Your task to perform on an android device: Play the last video I watched on Youtube Image 0: 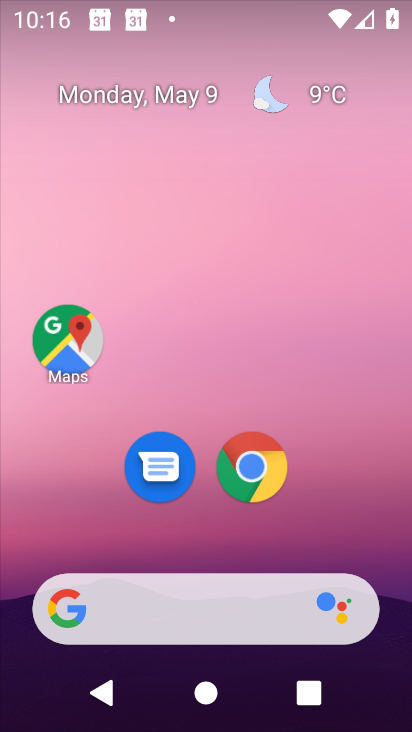
Step 0: drag from (389, 547) to (329, 7)
Your task to perform on an android device: Play the last video I watched on Youtube Image 1: 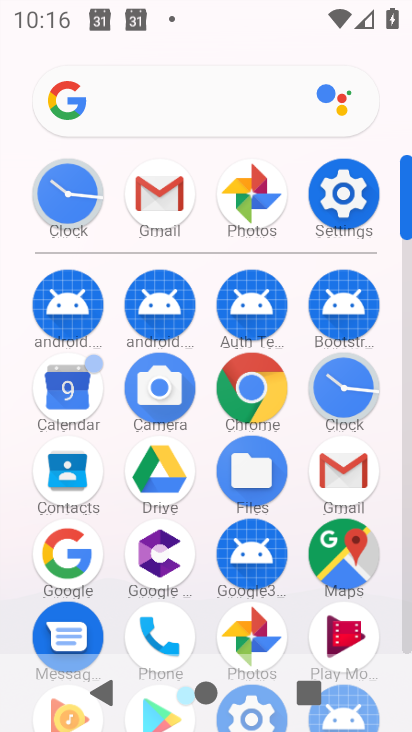
Step 1: drag from (411, 631) to (411, 595)
Your task to perform on an android device: Play the last video I watched on Youtube Image 2: 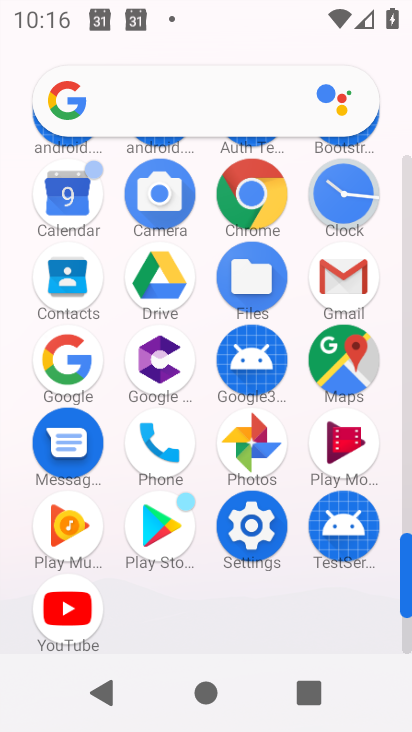
Step 2: click (78, 613)
Your task to perform on an android device: Play the last video I watched on Youtube Image 3: 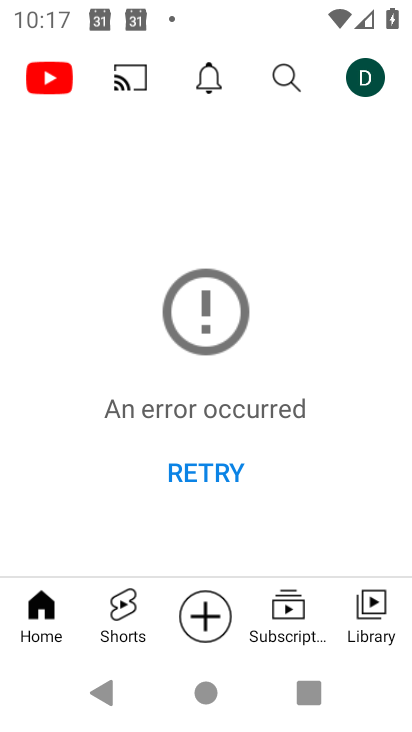
Step 3: click (362, 611)
Your task to perform on an android device: Play the last video I watched on Youtube Image 4: 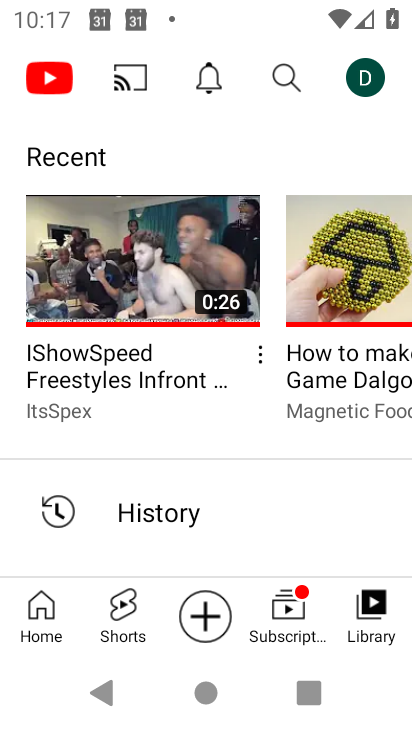
Step 4: click (160, 505)
Your task to perform on an android device: Play the last video I watched on Youtube Image 5: 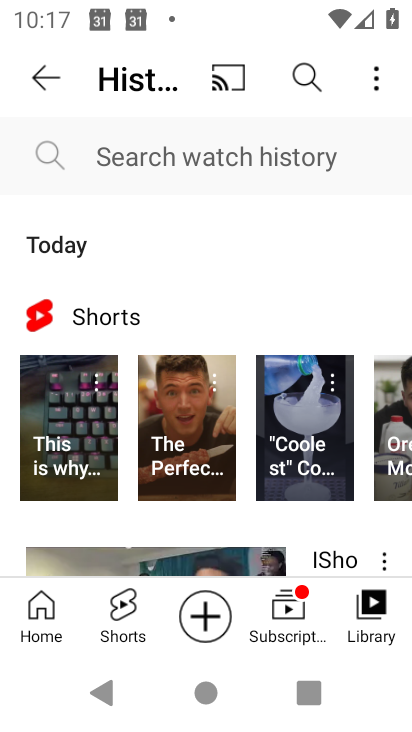
Step 5: drag from (174, 482) to (159, 111)
Your task to perform on an android device: Play the last video I watched on Youtube Image 6: 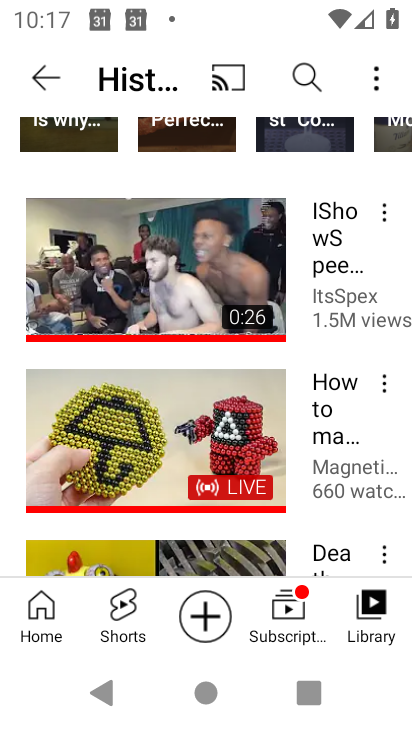
Step 6: click (113, 270)
Your task to perform on an android device: Play the last video I watched on Youtube Image 7: 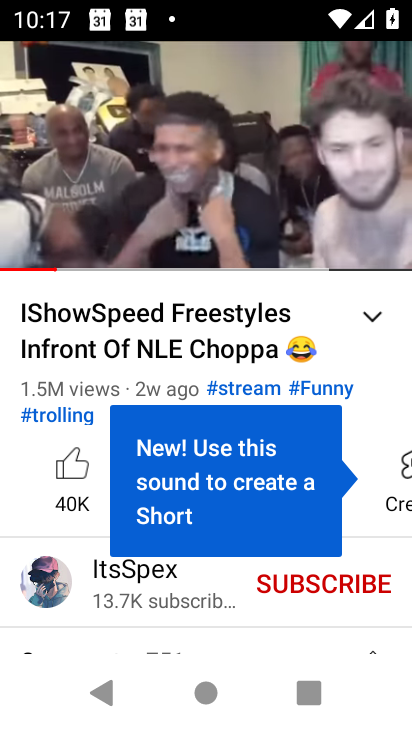
Step 7: click (232, 178)
Your task to perform on an android device: Play the last video I watched on Youtube Image 8: 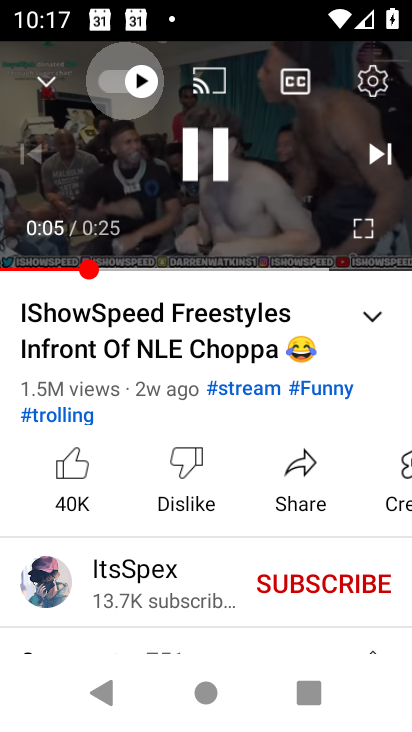
Step 8: click (214, 154)
Your task to perform on an android device: Play the last video I watched on Youtube Image 9: 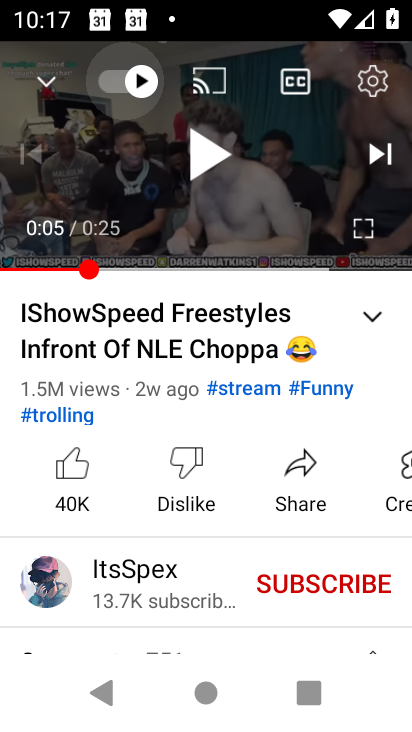
Step 9: task complete